Your task to perform on an android device: Show me recent news Image 0: 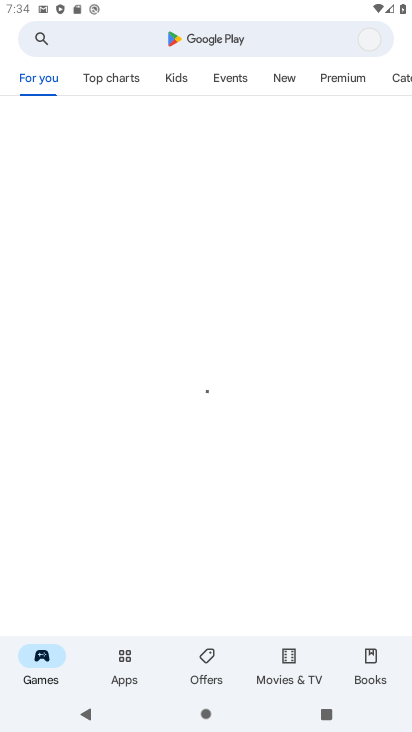
Step 0: press home button
Your task to perform on an android device: Show me recent news Image 1: 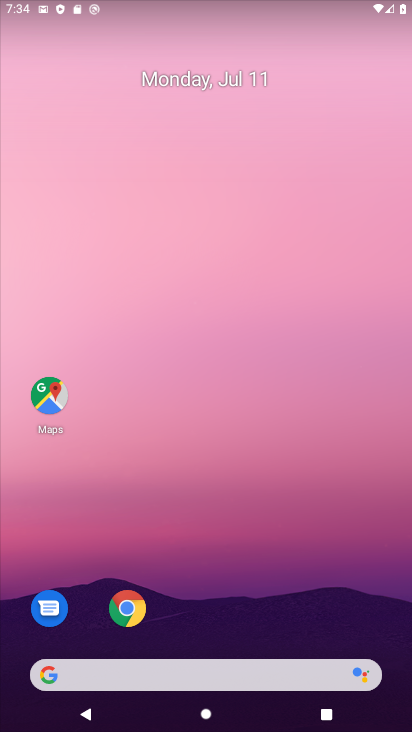
Step 1: click (247, 682)
Your task to perform on an android device: Show me recent news Image 2: 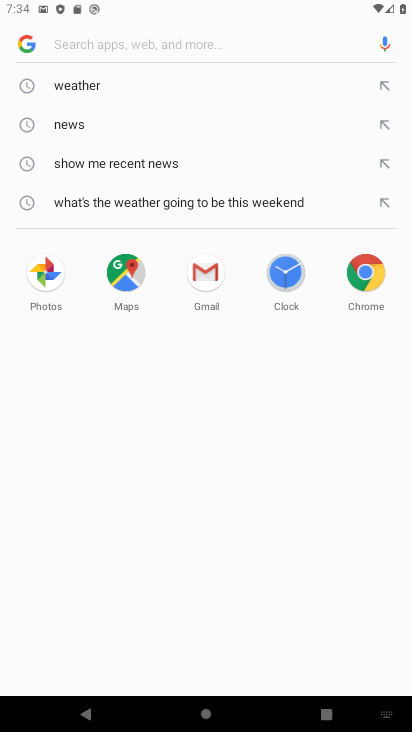
Step 2: click (103, 161)
Your task to perform on an android device: Show me recent news Image 3: 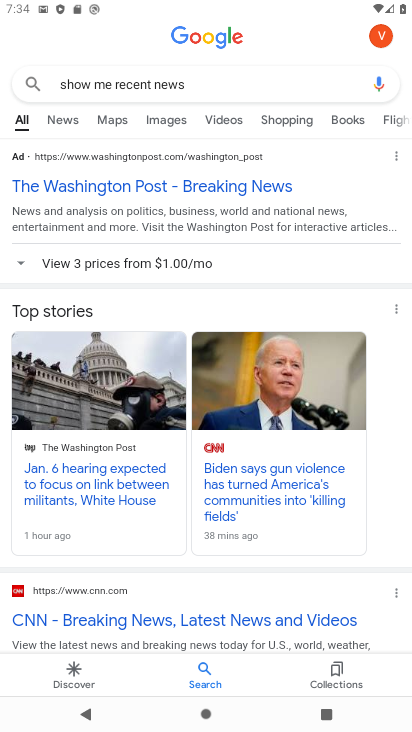
Step 3: task complete